Your task to perform on an android device: check storage Image 0: 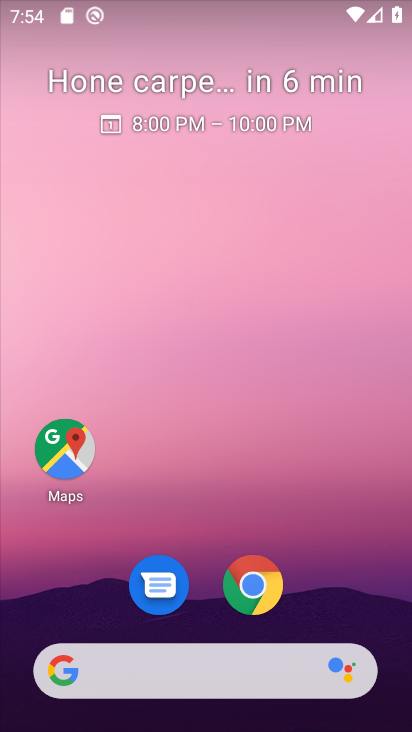
Step 0: drag from (333, 571) to (327, 124)
Your task to perform on an android device: check storage Image 1: 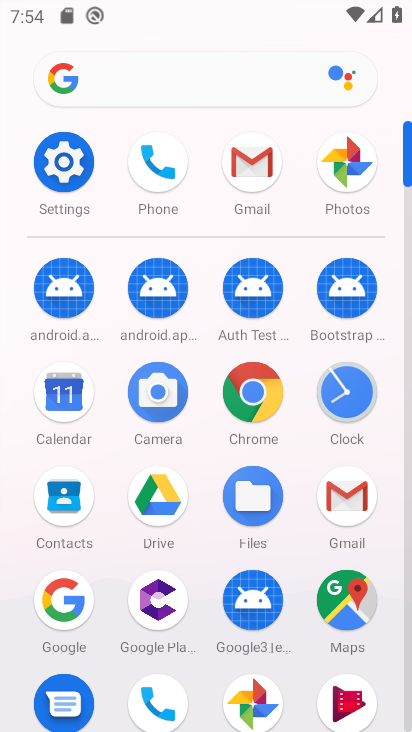
Step 1: click (70, 160)
Your task to perform on an android device: check storage Image 2: 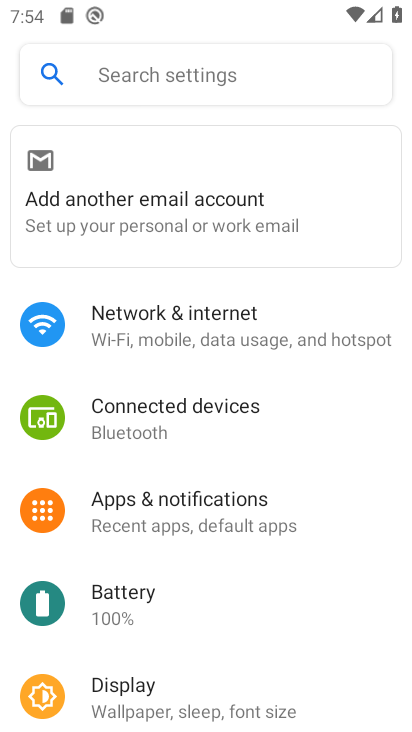
Step 2: drag from (196, 623) to (235, 185)
Your task to perform on an android device: check storage Image 3: 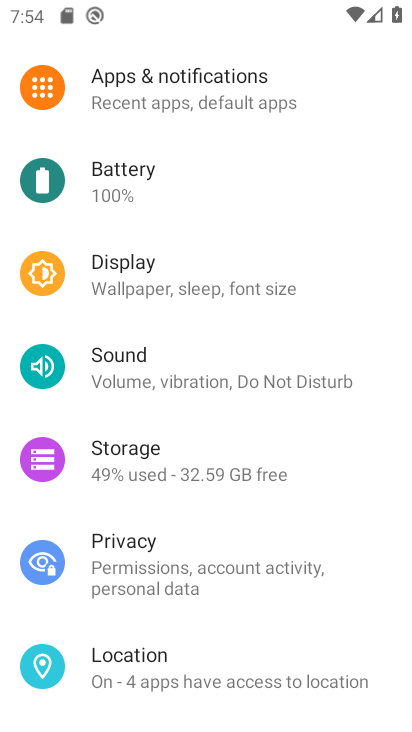
Step 3: click (215, 457)
Your task to perform on an android device: check storage Image 4: 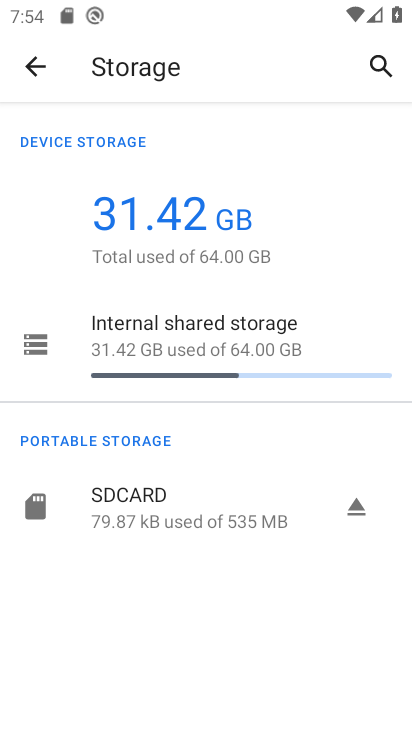
Step 4: task complete